Your task to perform on an android device: delete location history Image 0: 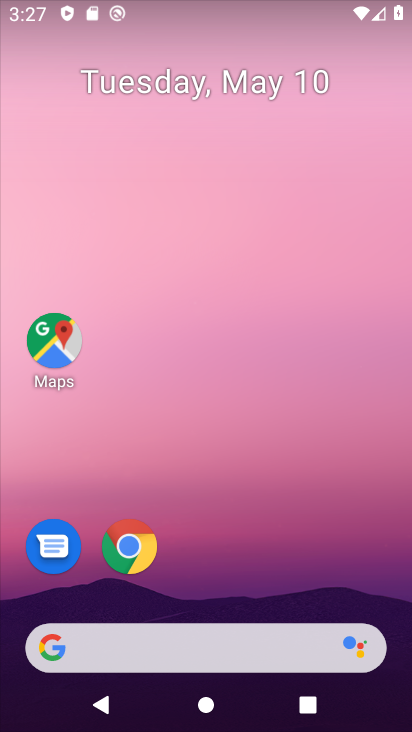
Step 0: click (67, 348)
Your task to perform on an android device: delete location history Image 1: 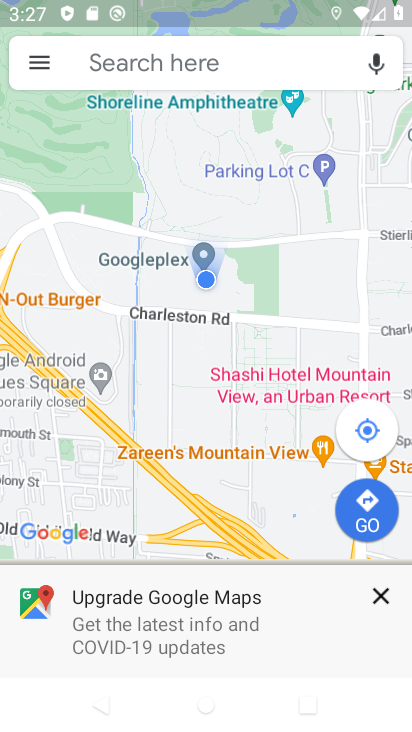
Step 1: click (40, 49)
Your task to perform on an android device: delete location history Image 2: 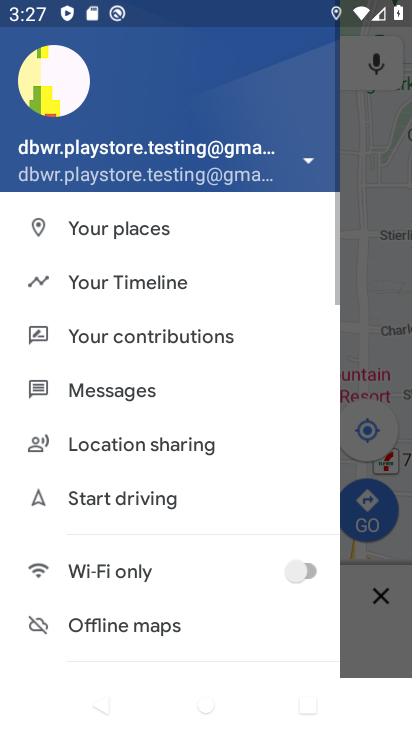
Step 2: click (219, 294)
Your task to perform on an android device: delete location history Image 3: 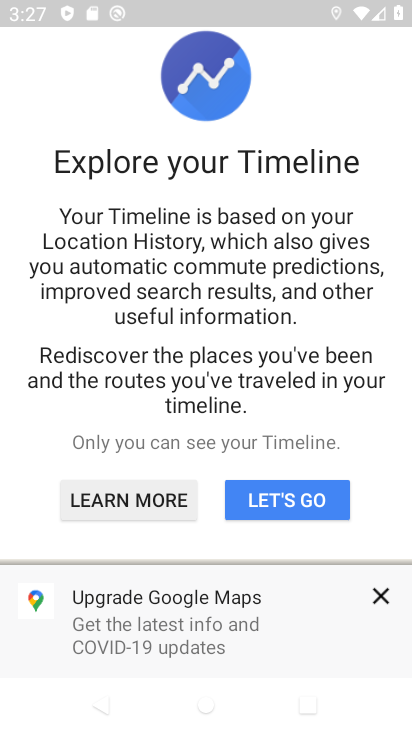
Step 3: click (383, 608)
Your task to perform on an android device: delete location history Image 4: 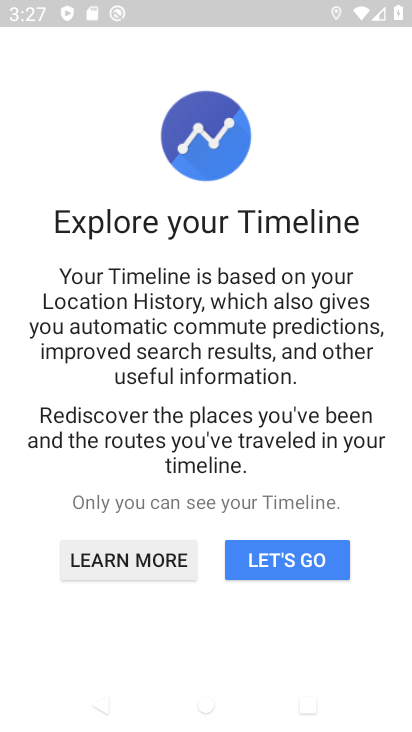
Step 4: click (280, 542)
Your task to perform on an android device: delete location history Image 5: 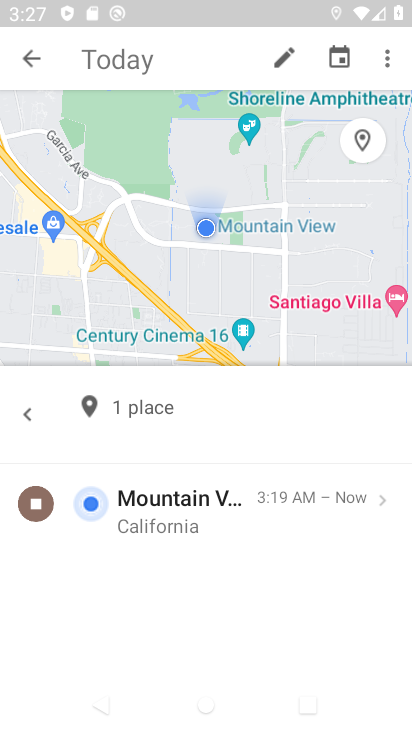
Step 5: click (387, 61)
Your task to perform on an android device: delete location history Image 6: 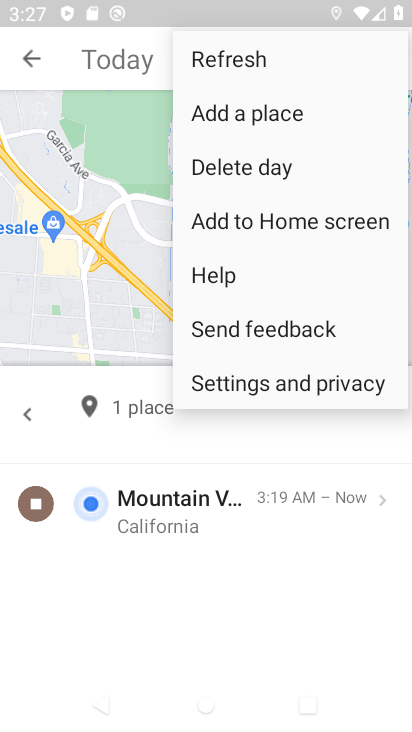
Step 6: click (305, 177)
Your task to perform on an android device: delete location history Image 7: 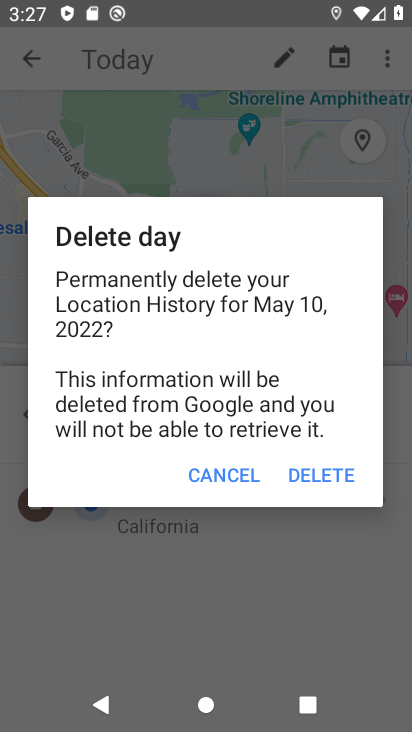
Step 7: click (337, 477)
Your task to perform on an android device: delete location history Image 8: 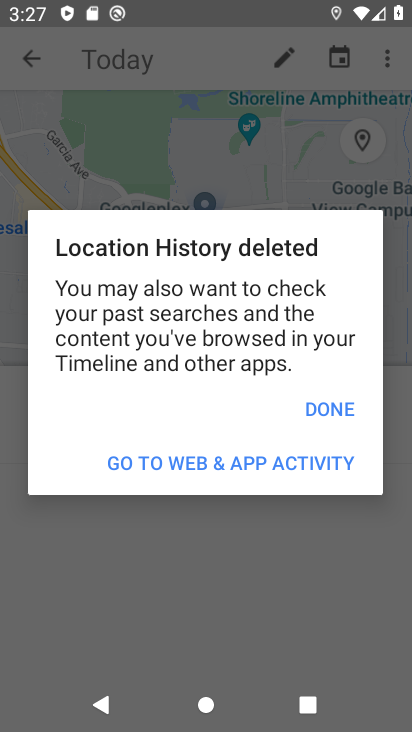
Step 8: click (337, 411)
Your task to perform on an android device: delete location history Image 9: 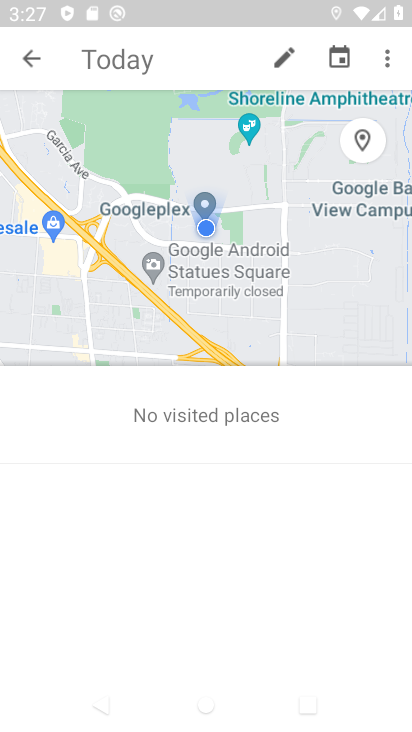
Step 9: task complete